Your task to perform on an android device: create a new album in the google photos Image 0: 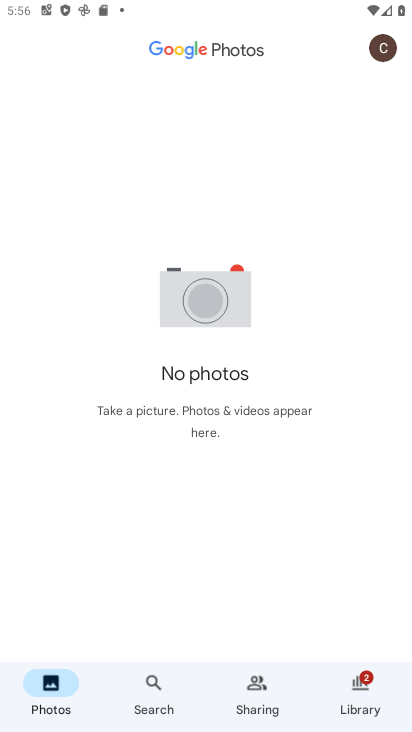
Step 0: press home button
Your task to perform on an android device: create a new album in the google photos Image 1: 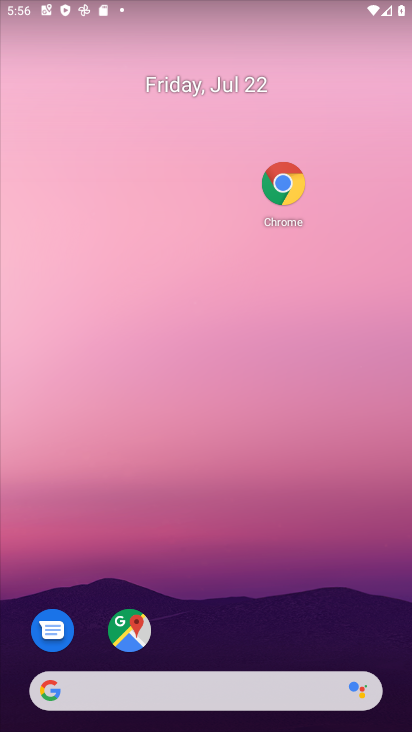
Step 1: drag from (175, 495) to (167, 24)
Your task to perform on an android device: create a new album in the google photos Image 2: 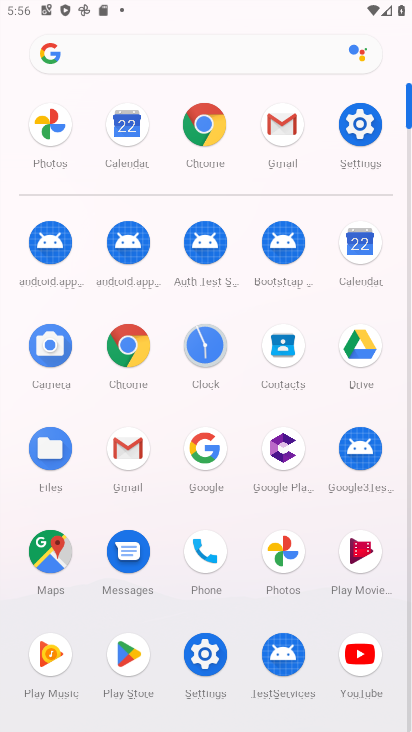
Step 2: click (282, 569)
Your task to perform on an android device: create a new album in the google photos Image 3: 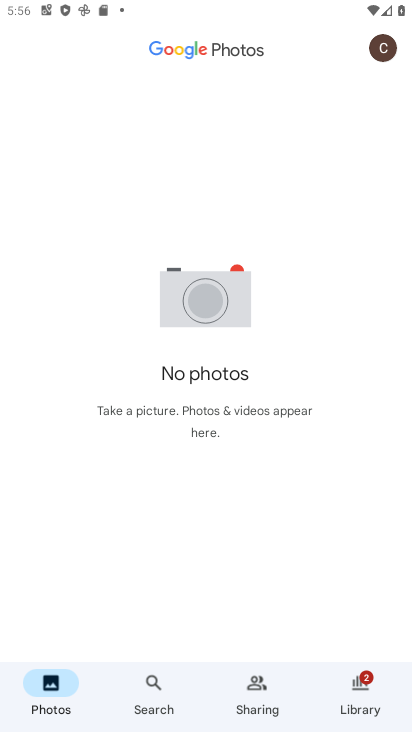
Step 3: click (351, 693)
Your task to perform on an android device: create a new album in the google photos Image 4: 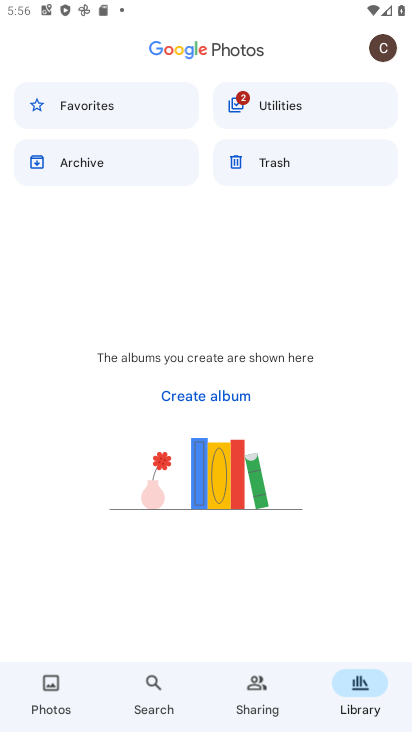
Step 4: click (206, 397)
Your task to perform on an android device: create a new album in the google photos Image 5: 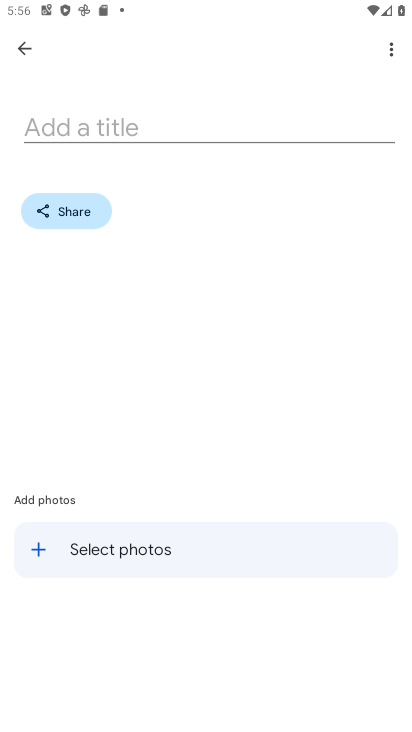
Step 5: click (182, 113)
Your task to perform on an android device: create a new album in the google photos Image 6: 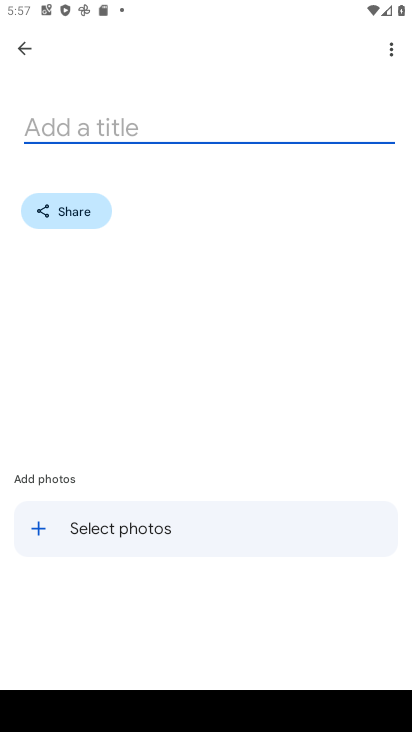
Step 6: type "vinny"
Your task to perform on an android device: create a new album in the google photos Image 7: 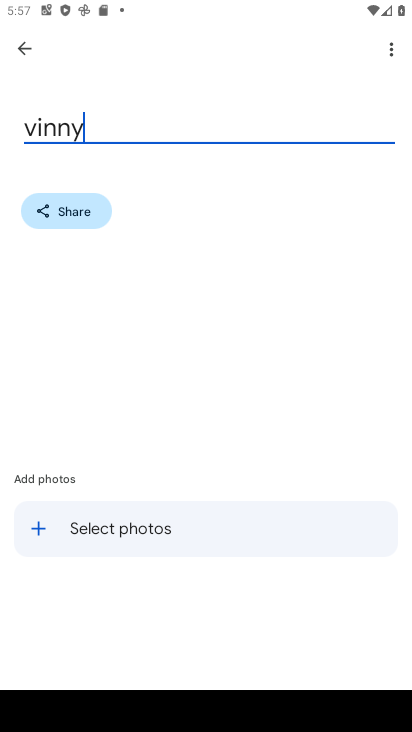
Step 7: click (108, 526)
Your task to perform on an android device: create a new album in the google photos Image 8: 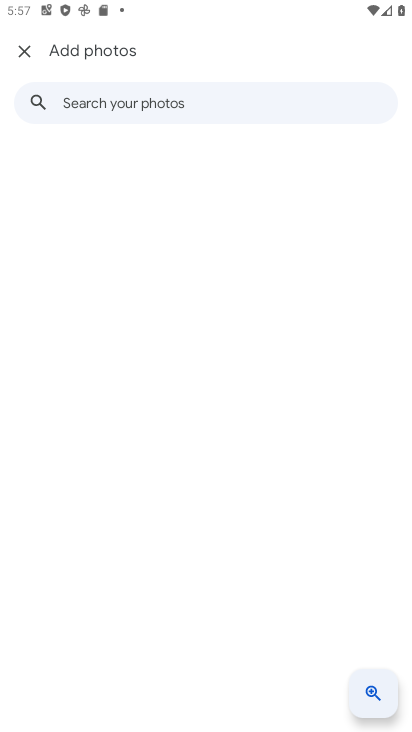
Step 8: task complete